Your task to perform on an android device: Open Wikipedia Image 0: 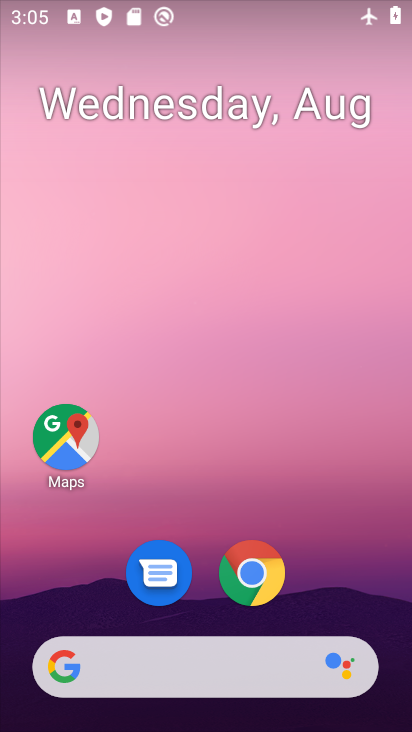
Step 0: click (252, 572)
Your task to perform on an android device: Open Wikipedia Image 1: 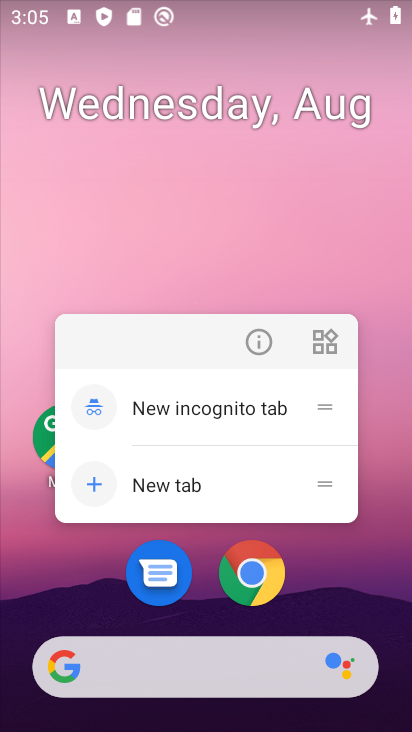
Step 1: click (252, 569)
Your task to perform on an android device: Open Wikipedia Image 2: 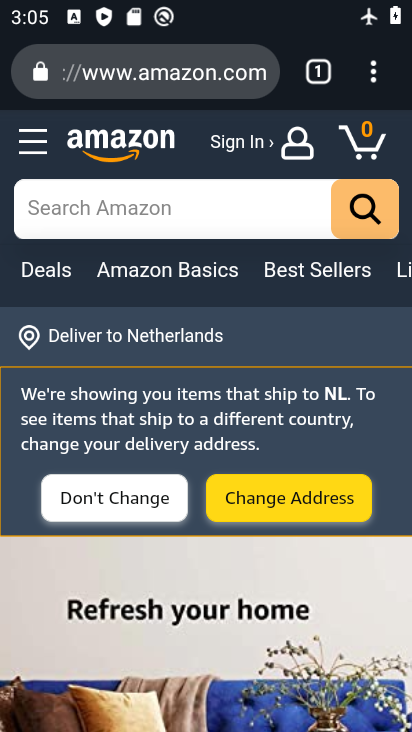
Step 2: click (378, 79)
Your task to perform on an android device: Open Wikipedia Image 3: 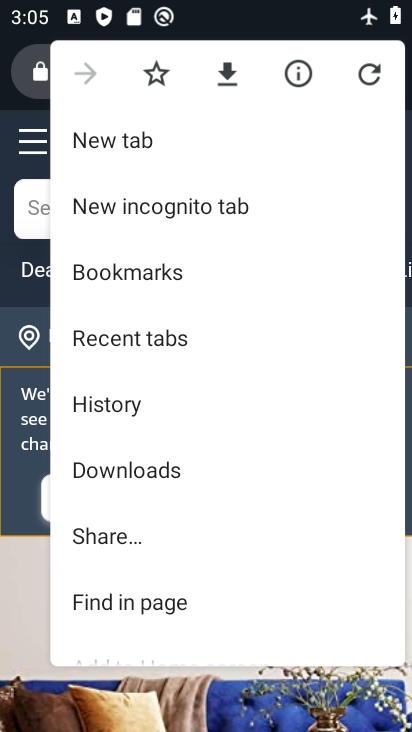
Step 3: click (192, 137)
Your task to perform on an android device: Open Wikipedia Image 4: 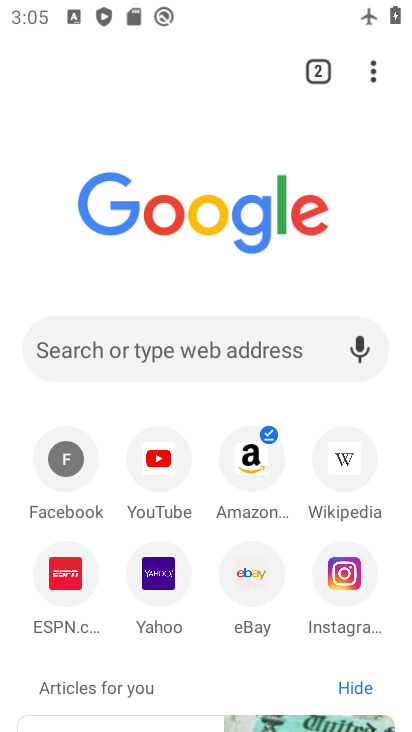
Step 4: click (342, 448)
Your task to perform on an android device: Open Wikipedia Image 5: 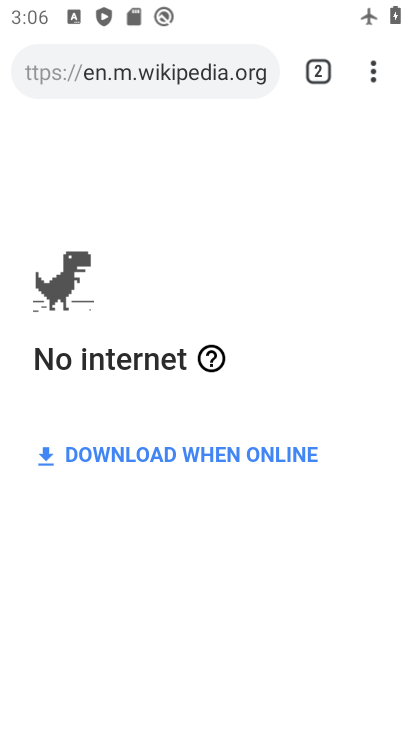
Step 5: task complete